Your task to perform on an android device: Open Google Chrome Image 0: 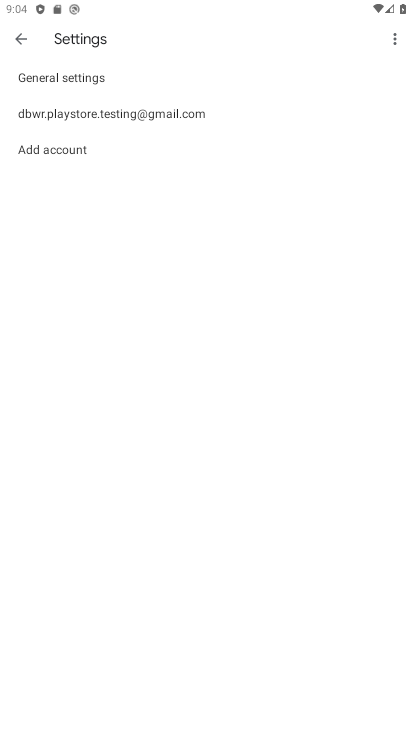
Step 0: click (153, 123)
Your task to perform on an android device: Open Google Chrome Image 1: 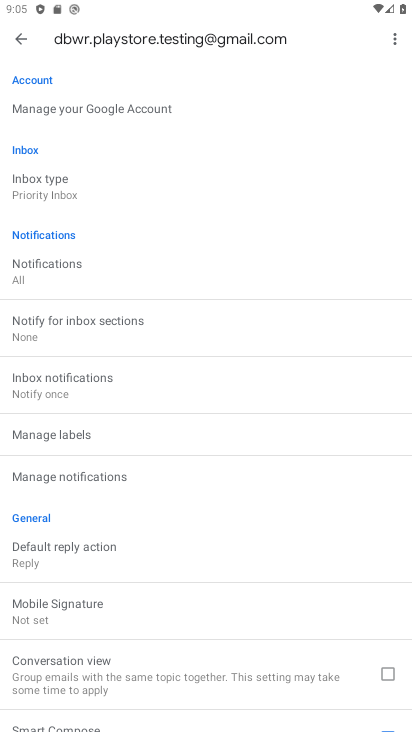
Step 1: press home button
Your task to perform on an android device: Open Google Chrome Image 2: 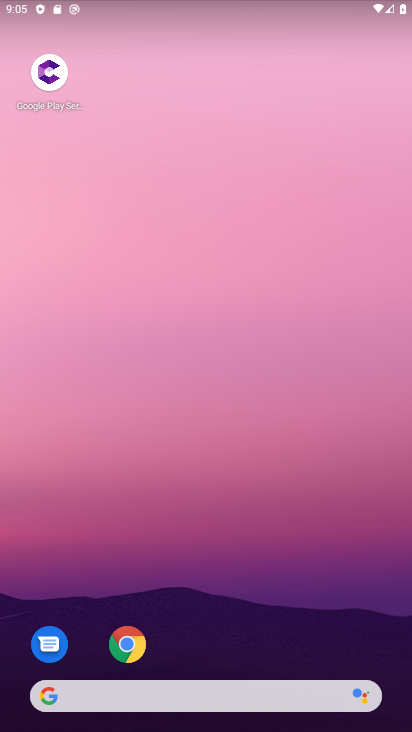
Step 2: drag from (349, 627) to (309, 190)
Your task to perform on an android device: Open Google Chrome Image 3: 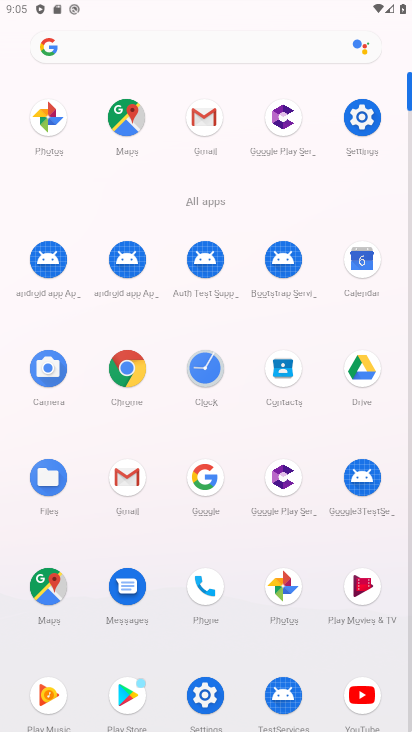
Step 3: click (136, 381)
Your task to perform on an android device: Open Google Chrome Image 4: 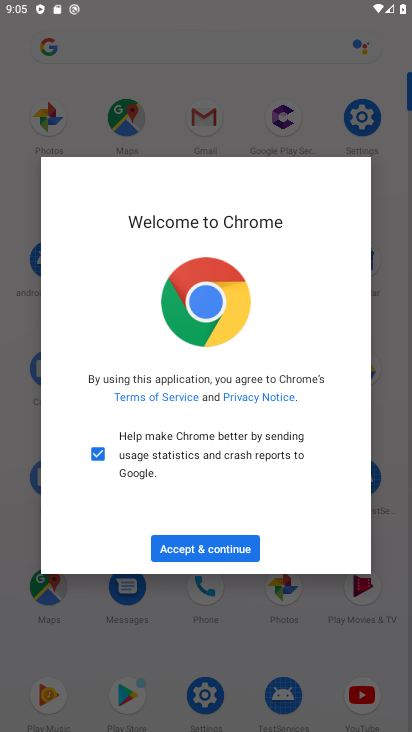
Step 4: click (241, 551)
Your task to perform on an android device: Open Google Chrome Image 5: 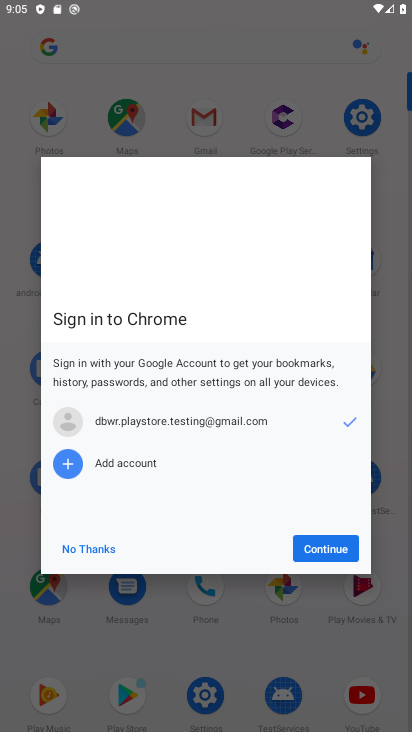
Step 5: click (338, 551)
Your task to perform on an android device: Open Google Chrome Image 6: 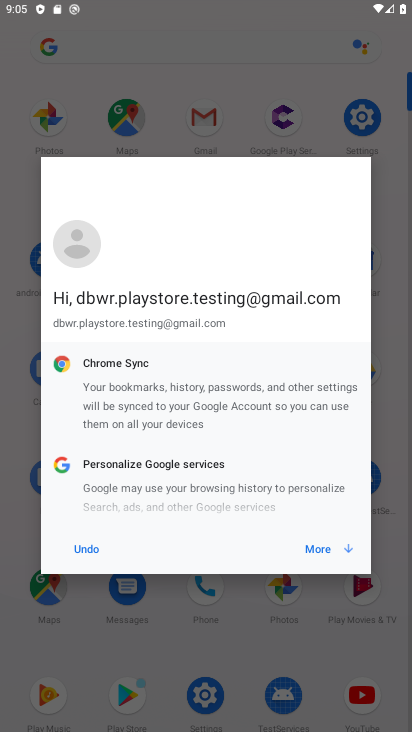
Step 6: click (333, 550)
Your task to perform on an android device: Open Google Chrome Image 7: 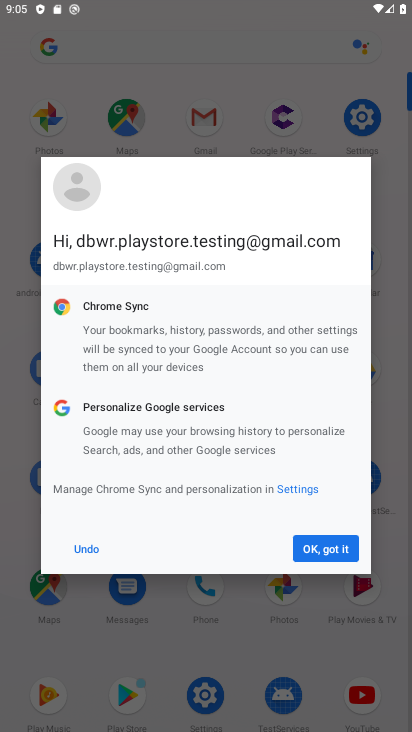
Step 7: click (333, 550)
Your task to perform on an android device: Open Google Chrome Image 8: 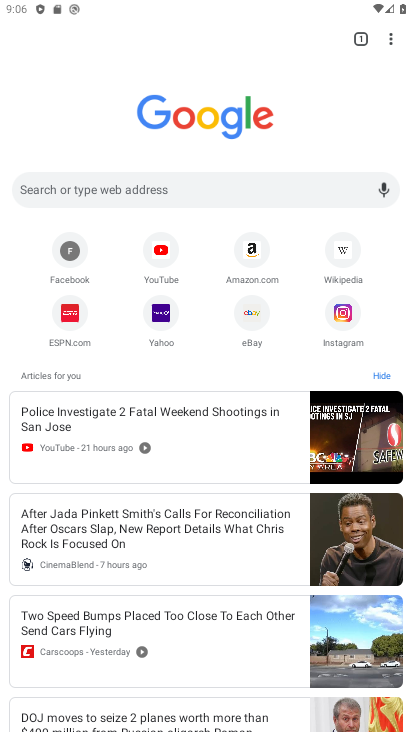
Step 8: task complete